Your task to perform on an android device: Open internet settings Image 0: 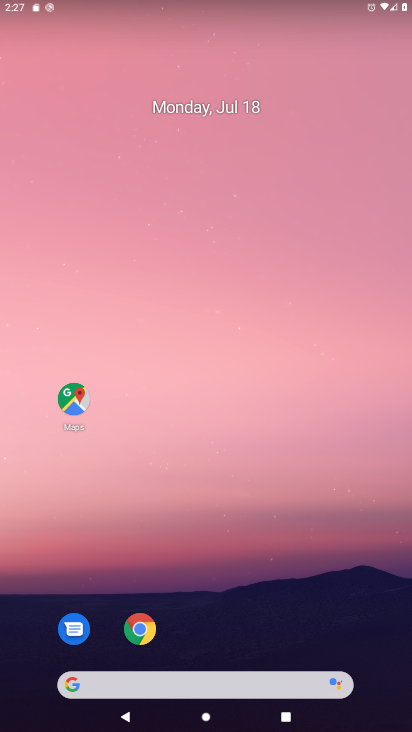
Step 0: drag from (184, 595) to (224, 57)
Your task to perform on an android device: Open internet settings Image 1: 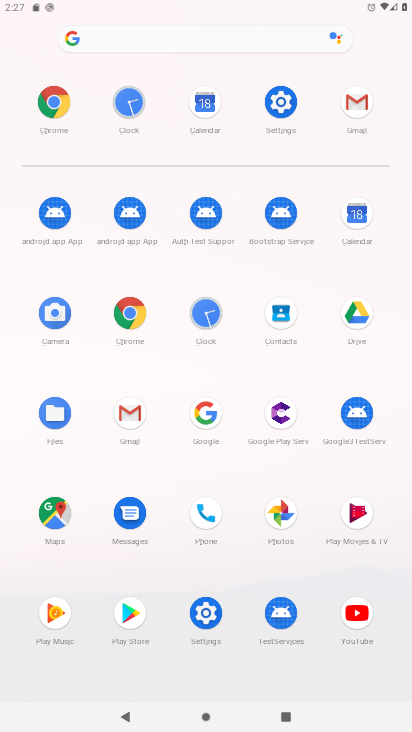
Step 1: click (280, 106)
Your task to perform on an android device: Open internet settings Image 2: 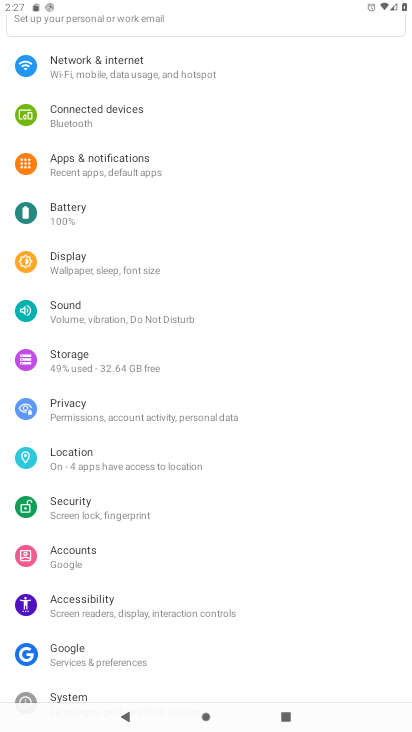
Step 2: click (180, 66)
Your task to perform on an android device: Open internet settings Image 3: 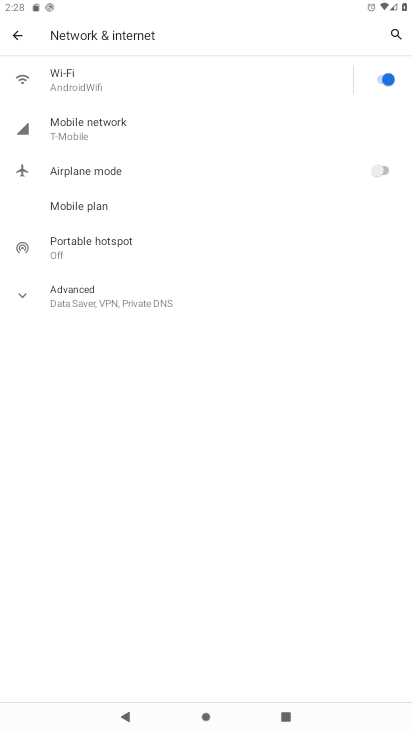
Step 3: task complete